Your task to perform on an android device: Go to wifi settings Image 0: 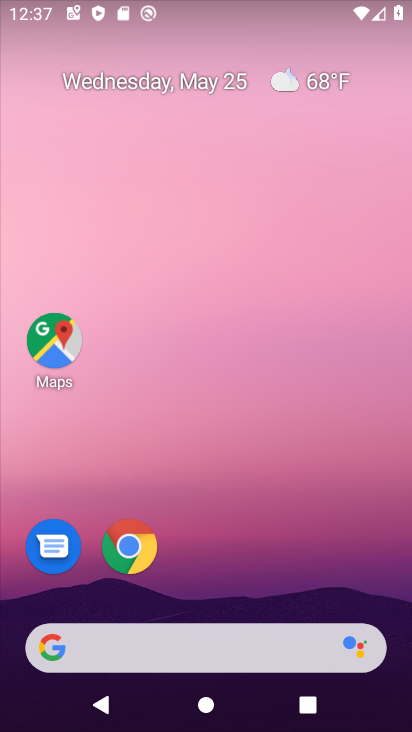
Step 0: drag from (247, 578) to (269, 79)
Your task to perform on an android device: Go to wifi settings Image 1: 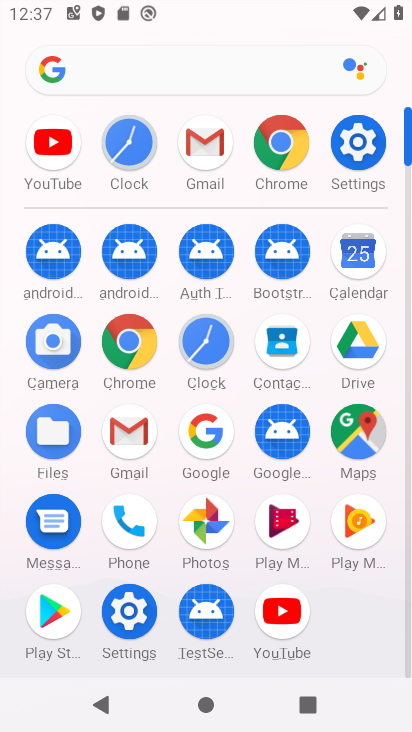
Step 1: click (368, 127)
Your task to perform on an android device: Go to wifi settings Image 2: 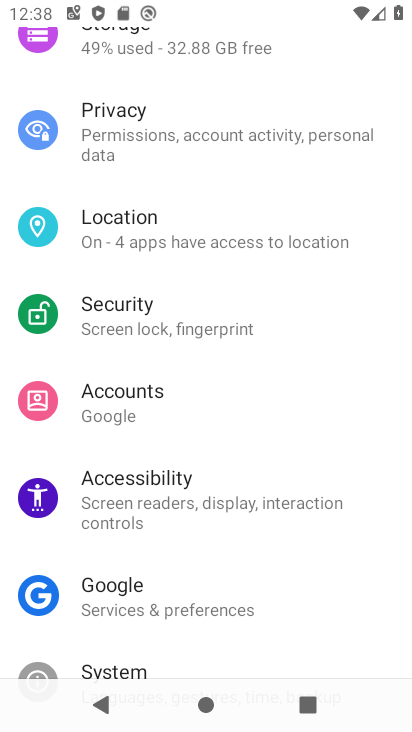
Step 2: drag from (161, 99) to (160, 583)
Your task to perform on an android device: Go to wifi settings Image 3: 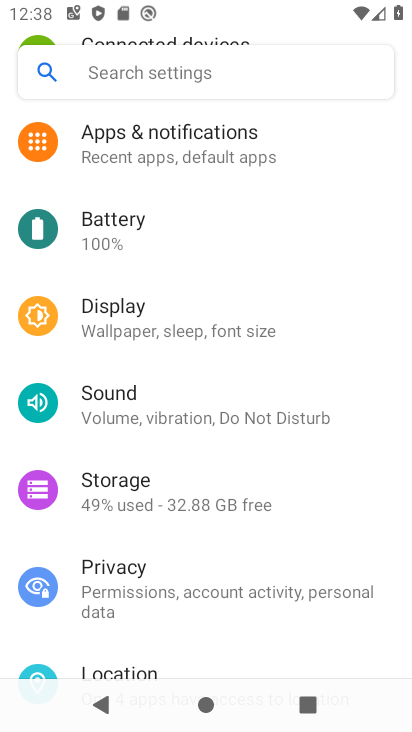
Step 3: drag from (211, 246) to (200, 526)
Your task to perform on an android device: Go to wifi settings Image 4: 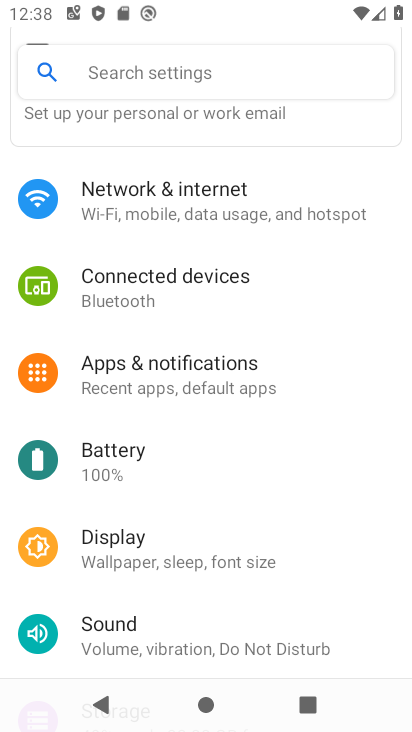
Step 4: drag from (252, 290) to (253, 453)
Your task to perform on an android device: Go to wifi settings Image 5: 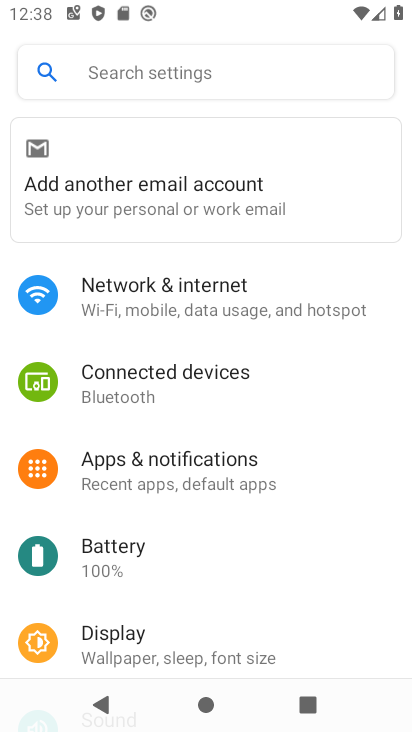
Step 5: click (234, 306)
Your task to perform on an android device: Go to wifi settings Image 6: 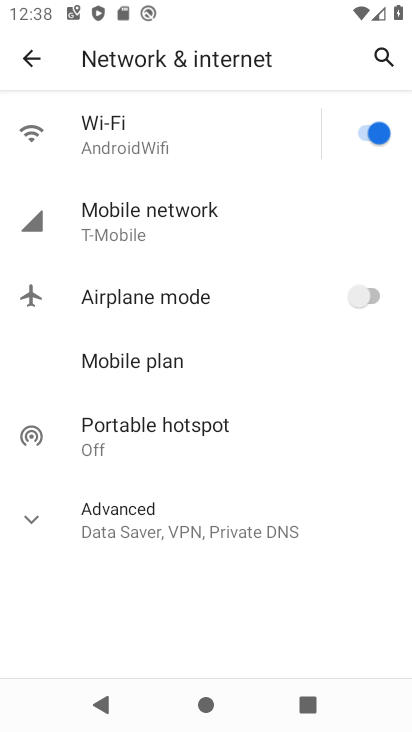
Step 6: click (151, 136)
Your task to perform on an android device: Go to wifi settings Image 7: 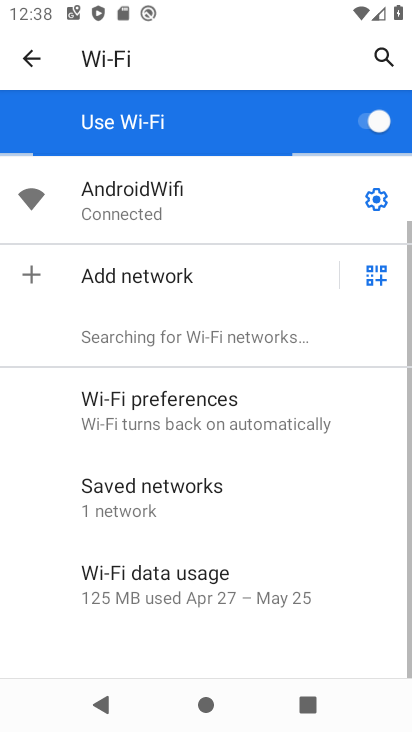
Step 7: task complete